Your task to perform on an android device: refresh tabs in the chrome app Image 0: 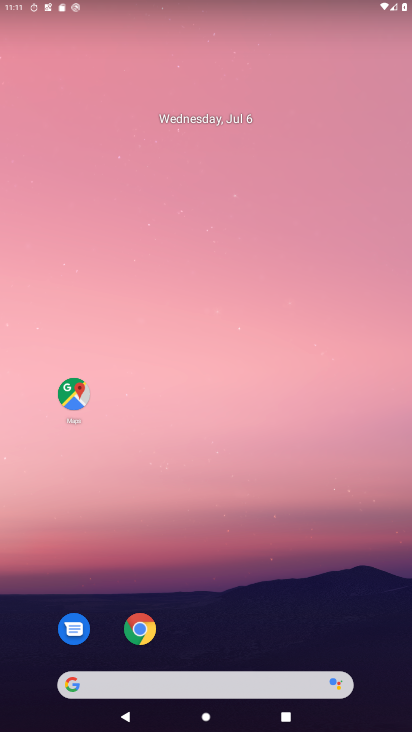
Step 0: drag from (259, 598) to (260, 142)
Your task to perform on an android device: refresh tabs in the chrome app Image 1: 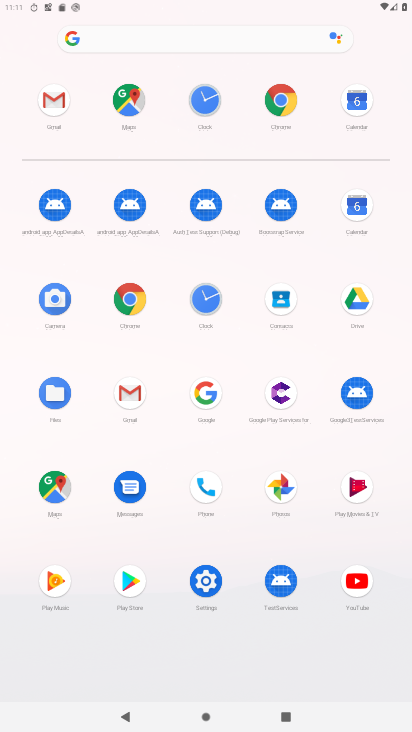
Step 1: click (274, 96)
Your task to perform on an android device: refresh tabs in the chrome app Image 2: 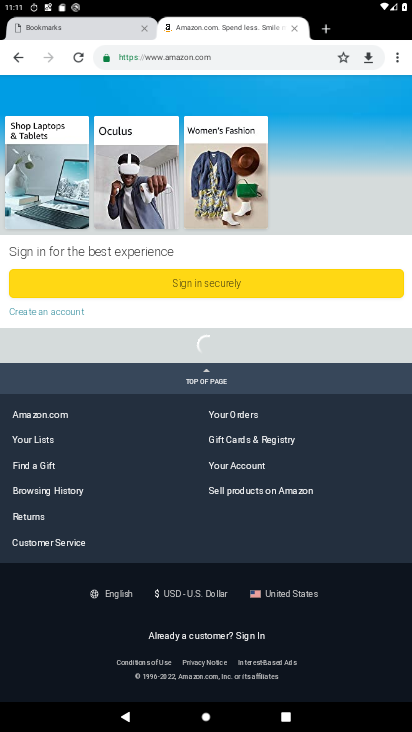
Step 2: click (80, 54)
Your task to perform on an android device: refresh tabs in the chrome app Image 3: 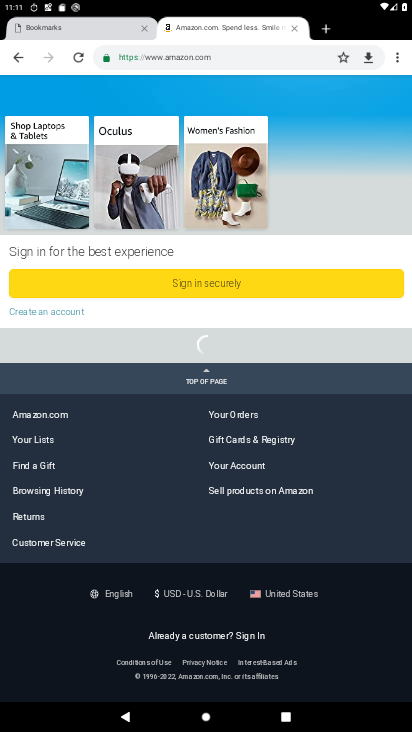
Step 3: task complete